Your task to perform on an android device: change notification settings in the gmail app Image 0: 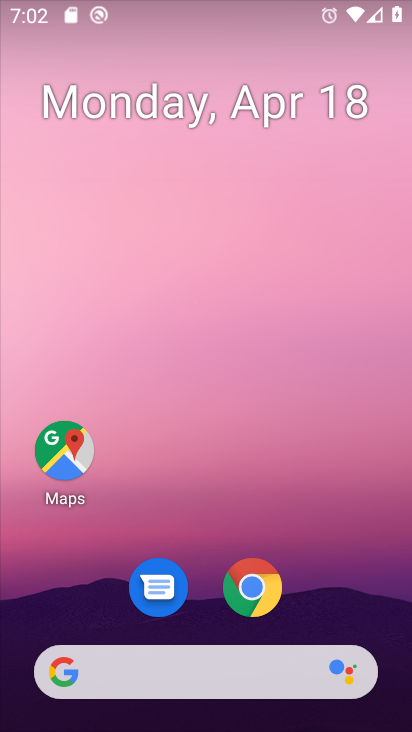
Step 0: drag from (344, 602) to (325, 186)
Your task to perform on an android device: change notification settings in the gmail app Image 1: 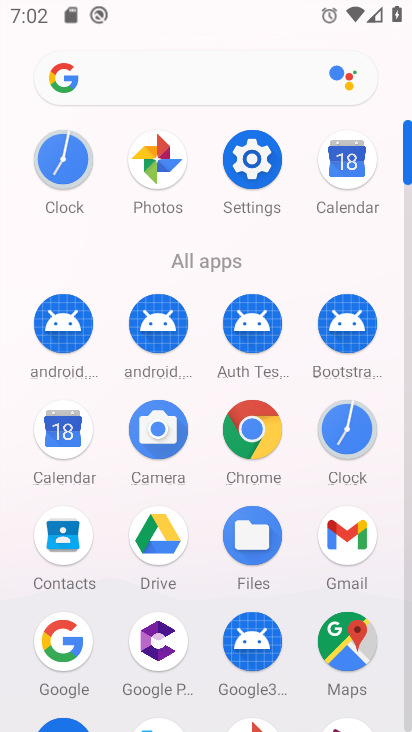
Step 1: click (359, 532)
Your task to perform on an android device: change notification settings in the gmail app Image 2: 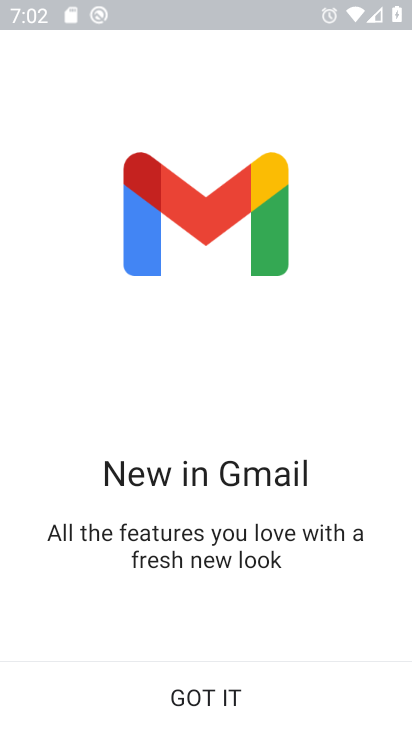
Step 2: click (218, 669)
Your task to perform on an android device: change notification settings in the gmail app Image 3: 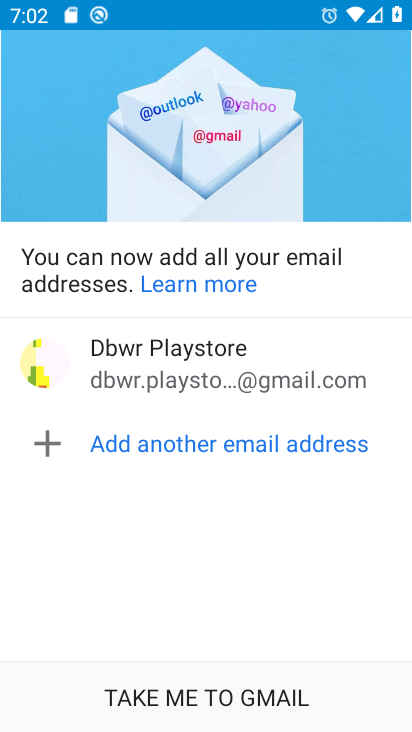
Step 3: click (210, 676)
Your task to perform on an android device: change notification settings in the gmail app Image 4: 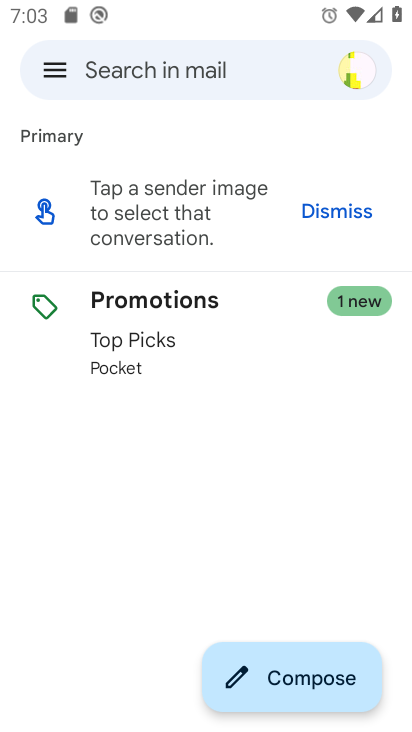
Step 4: click (49, 78)
Your task to perform on an android device: change notification settings in the gmail app Image 5: 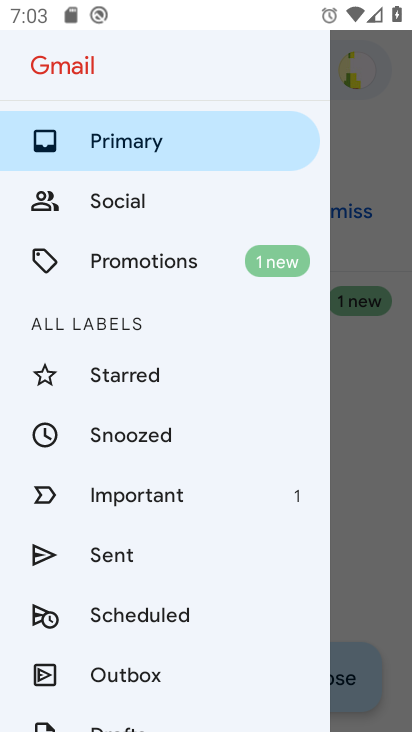
Step 5: drag from (135, 582) to (146, 352)
Your task to perform on an android device: change notification settings in the gmail app Image 6: 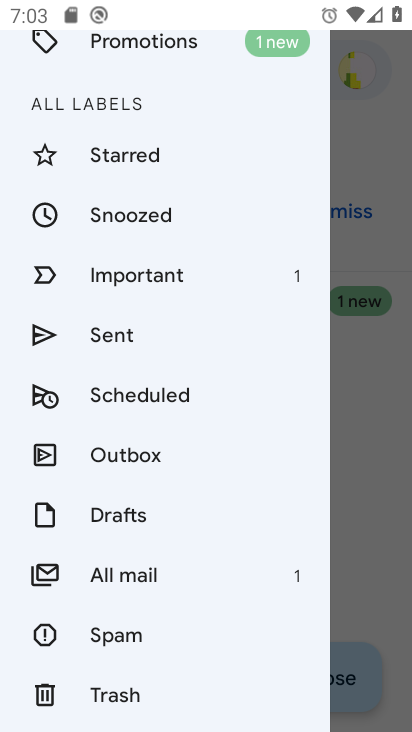
Step 6: drag from (159, 640) to (179, 319)
Your task to perform on an android device: change notification settings in the gmail app Image 7: 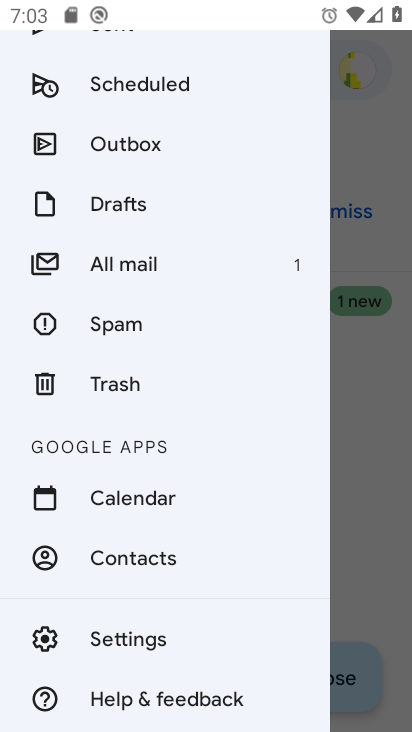
Step 7: click (134, 639)
Your task to perform on an android device: change notification settings in the gmail app Image 8: 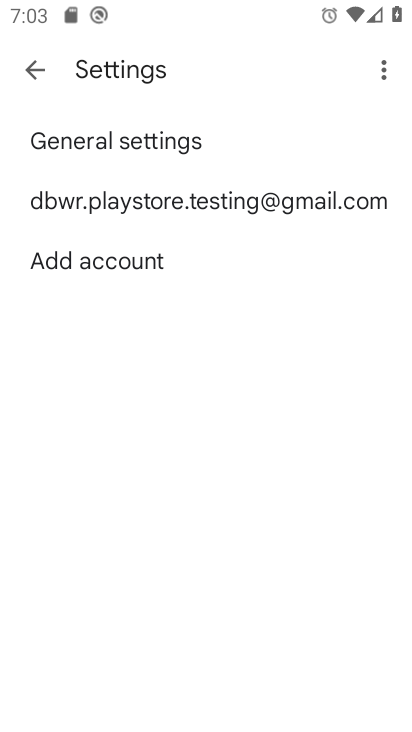
Step 8: click (155, 144)
Your task to perform on an android device: change notification settings in the gmail app Image 9: 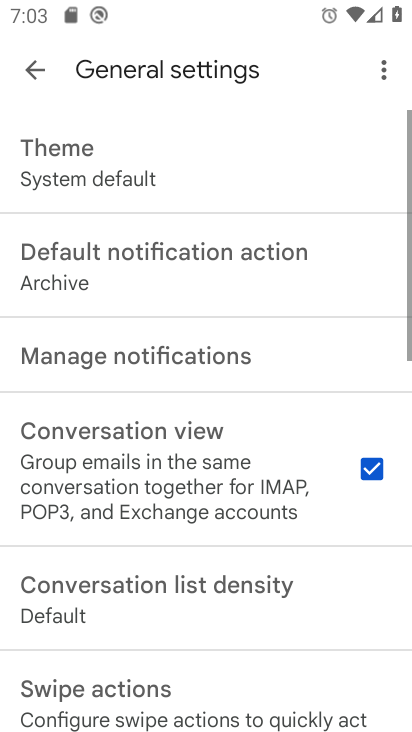
Step 9: click (131, 336)
Your task to perform on an android device: change notification settings in the gmail app Image 10: 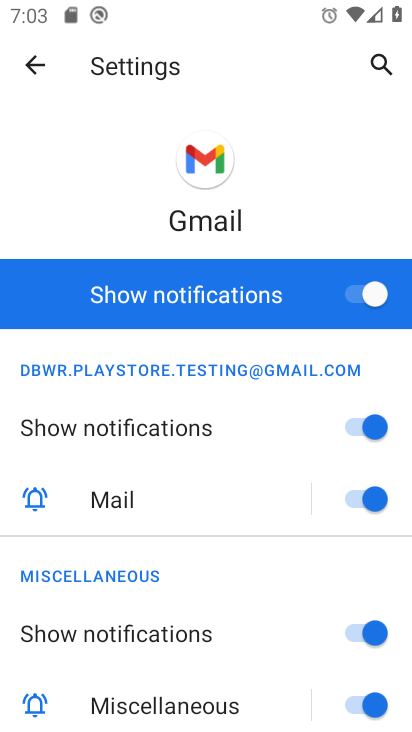
Step 10: click (285, 300)
Your task to perform on an android device: change notification settings in the gmail app Image 11: 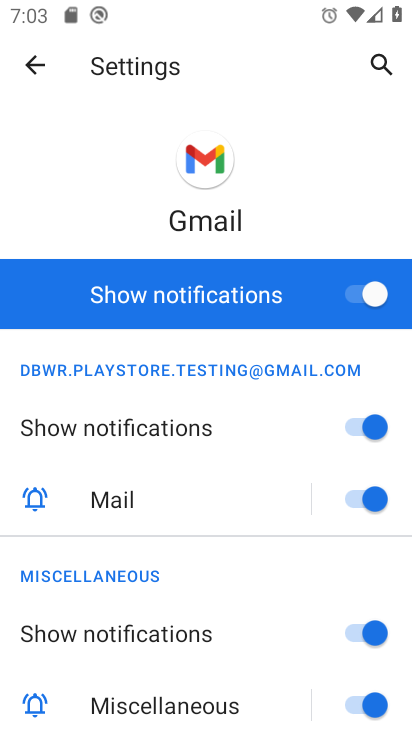
Step 11: drag from (285, 300) to (285, 196)
Your task to perform on an android device: change notification settings in the gmail app Image 12: 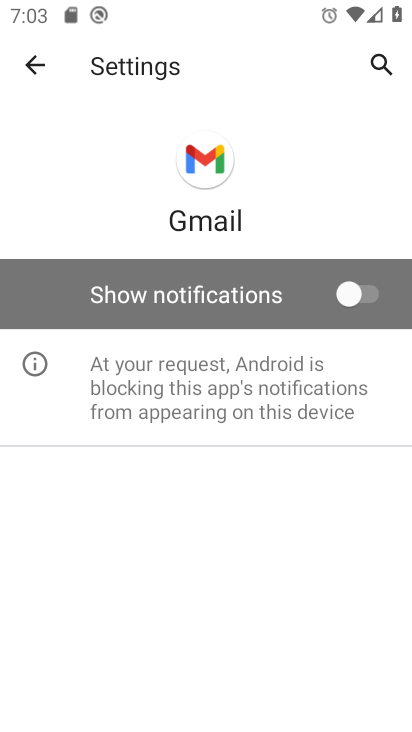
Step 12: click (303, 296)
Your task to perform on an android device: change notification settings in the gmail app Image 13: 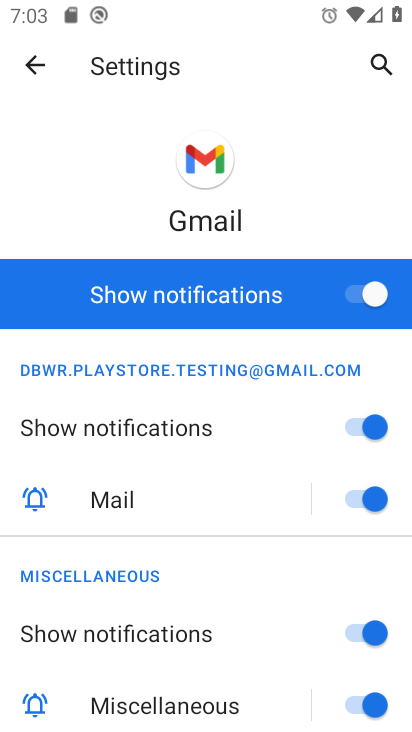
Step 13: click (345, 433)
Your task to perform on an android device: change notification settings in the gmail app Image 14: 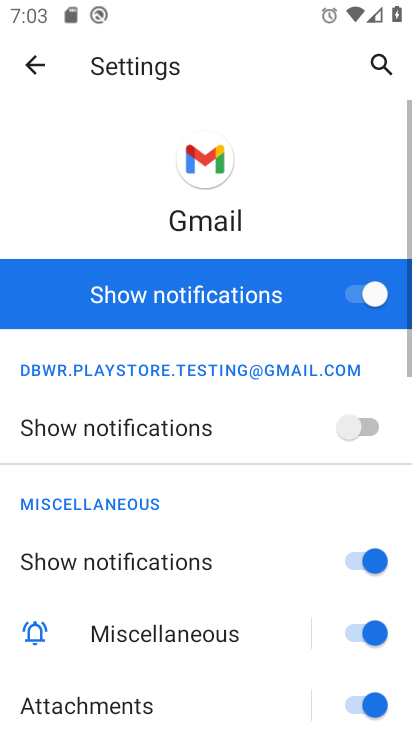
Step 14: task complete